Your task to perform on an android device: open a bookmark in the chrome app Image 0: 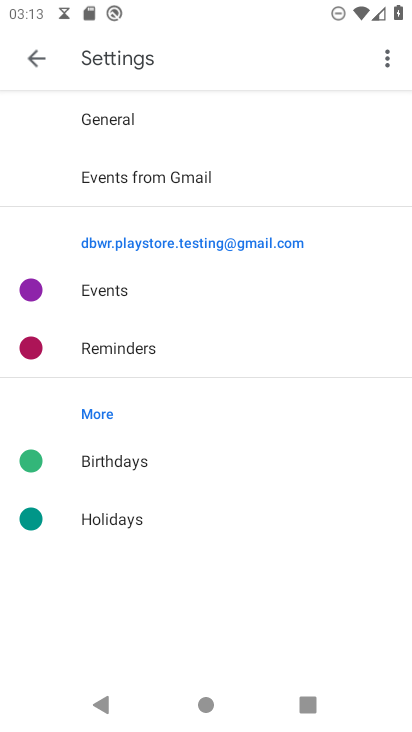
Step 0: press home button
Your task to perform on an android device: open a bookmark in the chrome app Image 1: 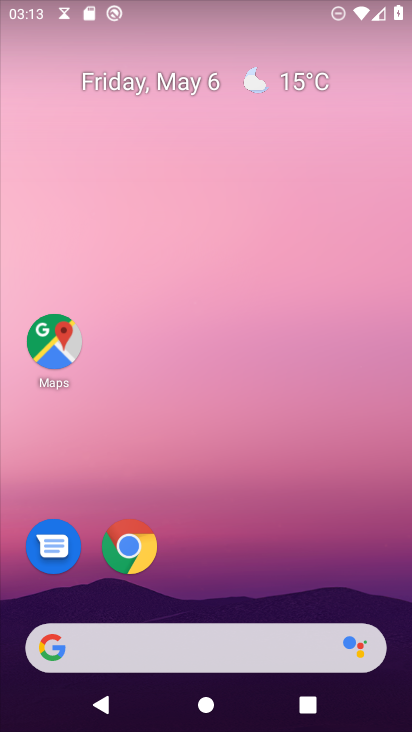
Step 1: click (127, 545)
Your task to perform on an android device: open a bookmark in the chrome app Image 2: 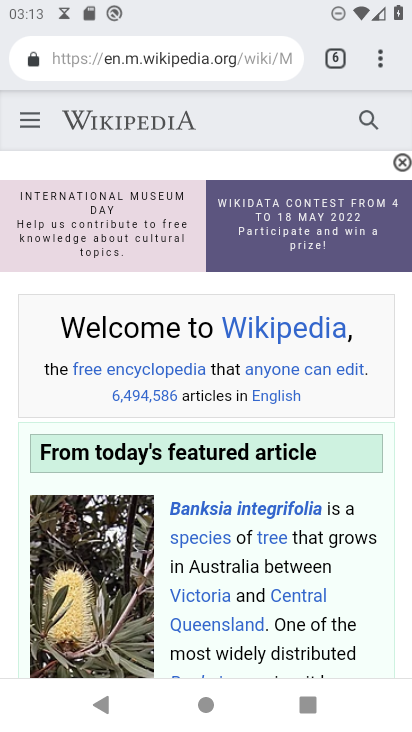
Step 2: click (378, 62)
Your task to perform on an android device: open a bookmark in the chrome app Image 3: 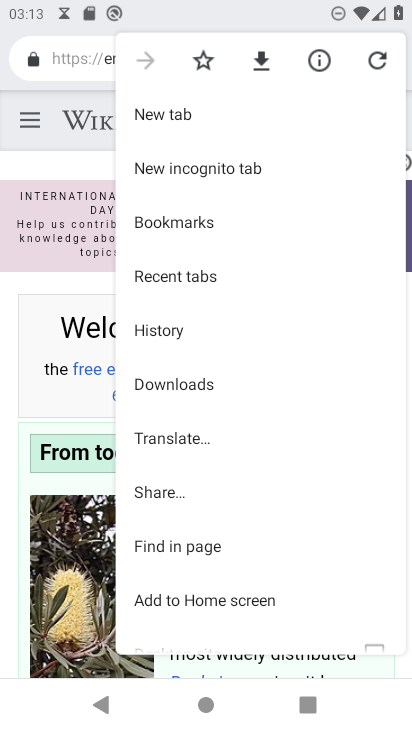
Step 3: click (211, 228)
Your task to perform on an android device: open a bookmark in the chrome app Image 4: 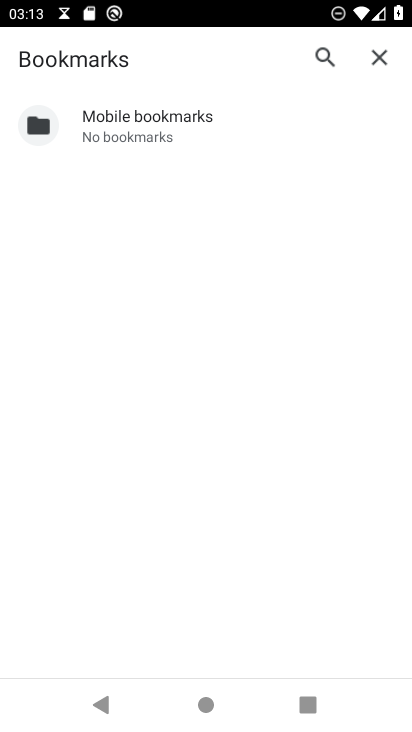
Step 4: click (212, 121)
Your task to perform on an android device: open a bookmark in the chrome app Image 5: 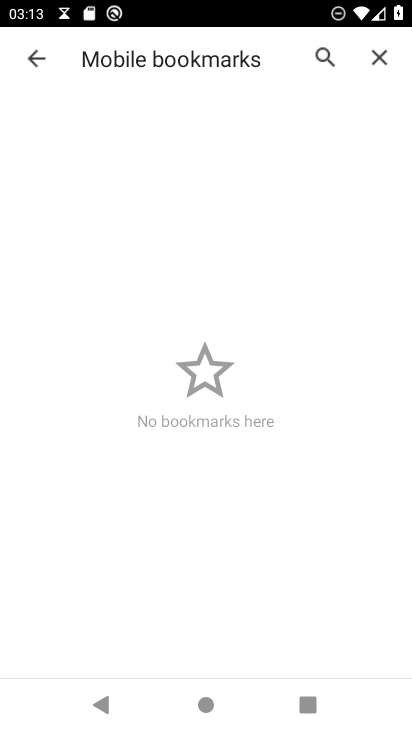
Step 5: task complete